Your task to perform on an android device: snooze an email in the gmail app Image 0: 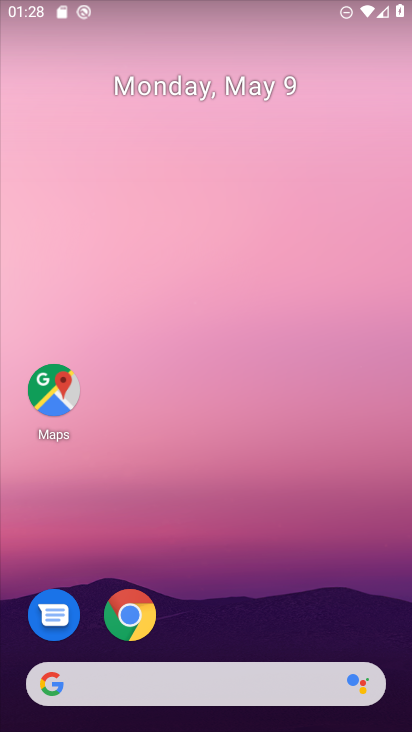
Step 0: press back button
Your task to perform on an android device: snooze an email in the gmail app Image 1: 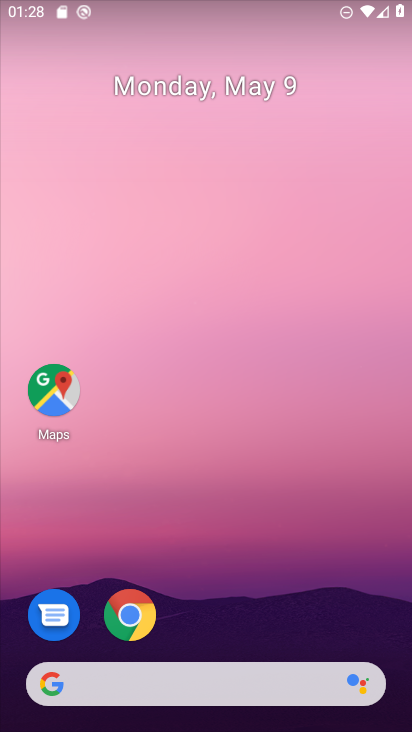
Step 1: drag from (265, 588) to (149, 99)
Your task to perform on an android device: snooze an email in the gmail app Image 2: 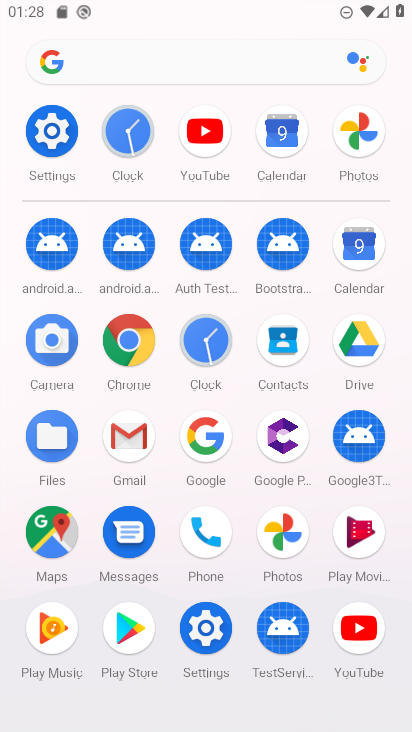
Step 2: click (130, 437)
Your task to perform on an android device: snooze an email in the gmail app Image 3: 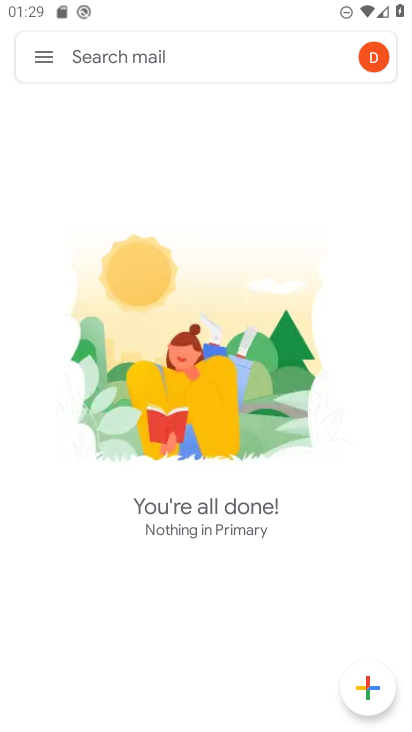
Step 3: click (45, 57)
Your task to perform on an android device: snooze an email in the gmail app Image 4: 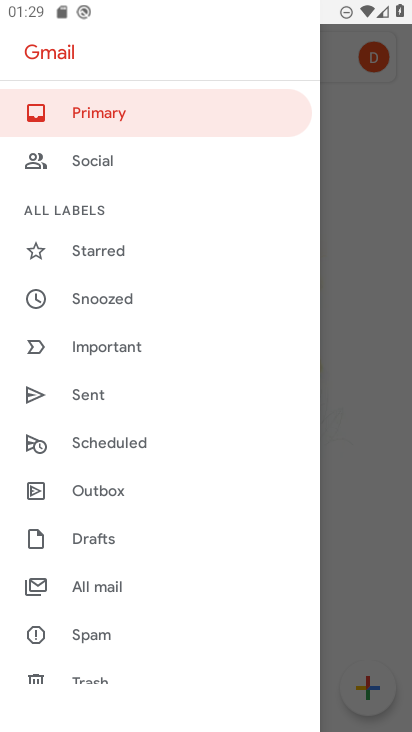
Step 4: click (90, 579)
Your task to perform on an android device: snooze an email in the gmail app Image 5: 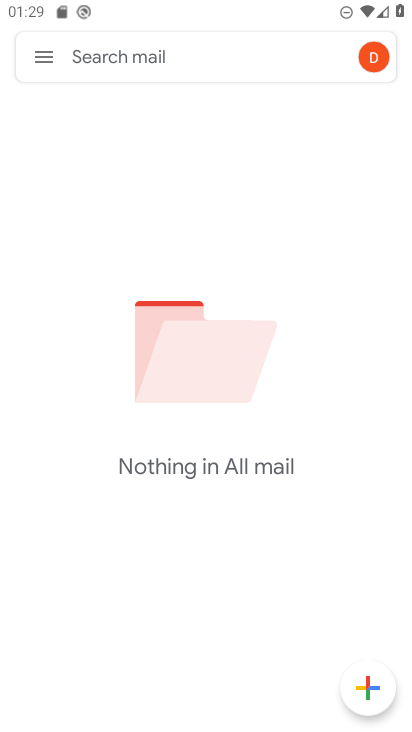
Step 5: click (41, 61)
Your task to perform on an android device: snooze an email in the gmail app Image 6: 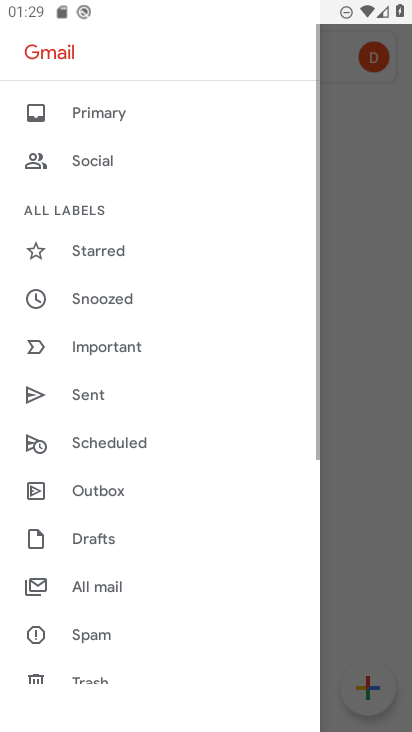
Step 6: click (83, 123)
Your task to perform on an android device: snooze an email in the gmail app Image 7: 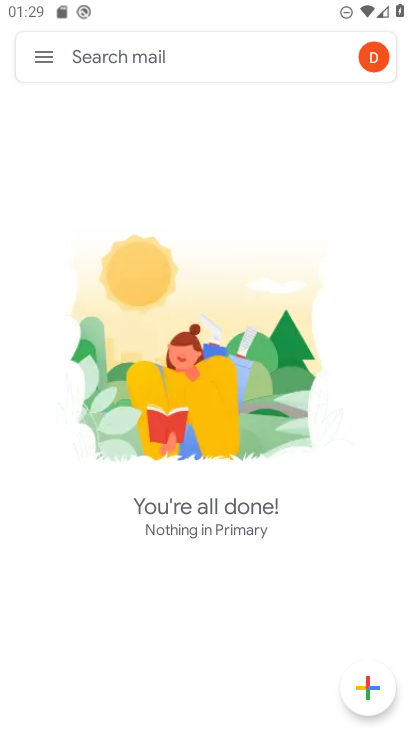
Step 7: click (40, 55)
Your task to perform on an android device: snooze an email in the gmail app Image 8: 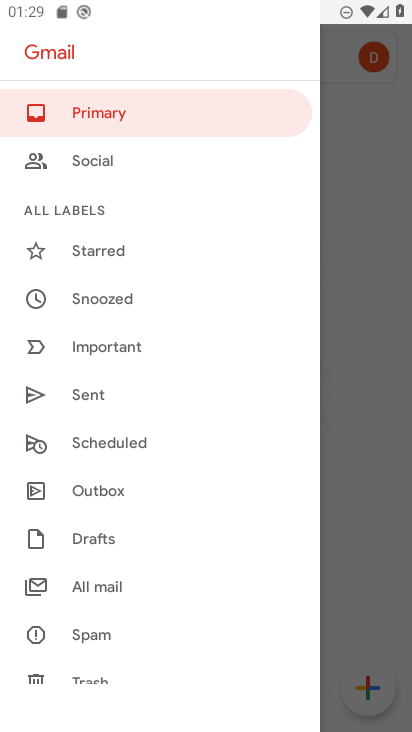
Step 8: task complete